Your task to perform on an android device: choose inbox layout in the gmail app Image 0: 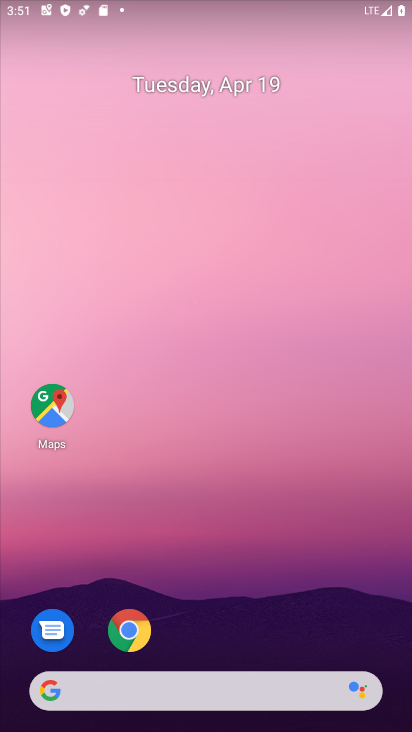
Step 0: drag from (232, 725) to (227, 102)
Your task to perform on an android device: choose inbox layout in the gmail app Image 1: 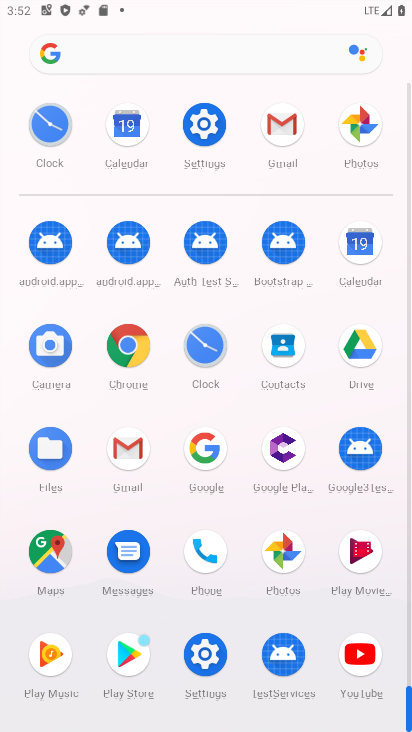
Step 1: click (284, 125)
Your task to perform on an android device: choose inbox layout in the gmail app Image 2: 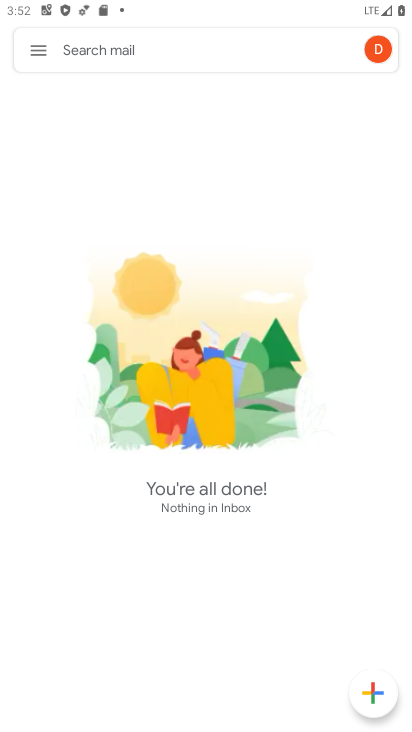
Step 2: click (42, 52)
Your task to perform on an android device: choose inbox layout in the gmail app Image 3: 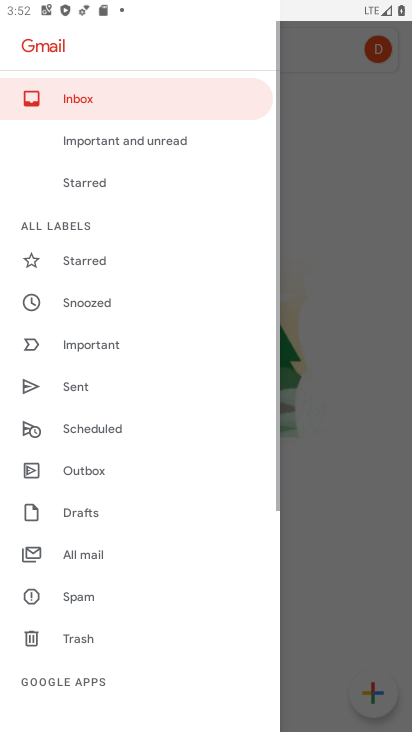
Step 3: drag from (101, 661) to (112, 184)
Your task to perform on an android device: choose inbox layout in the gmail app Image 4: 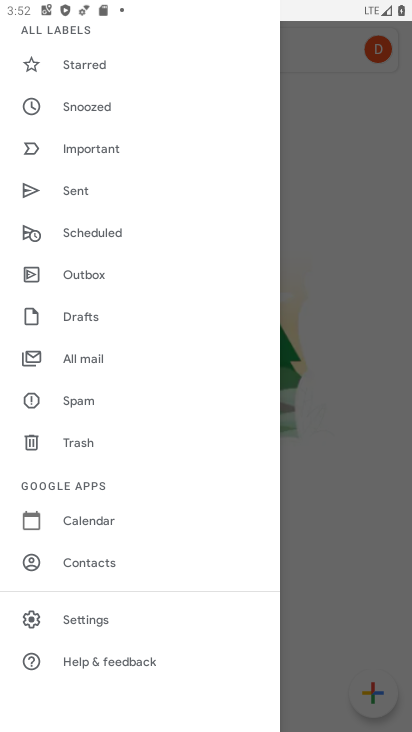
Step 4: click (86, 619)
Your task to perform on an android device: choose inbox layout in the gmail app Image 5: 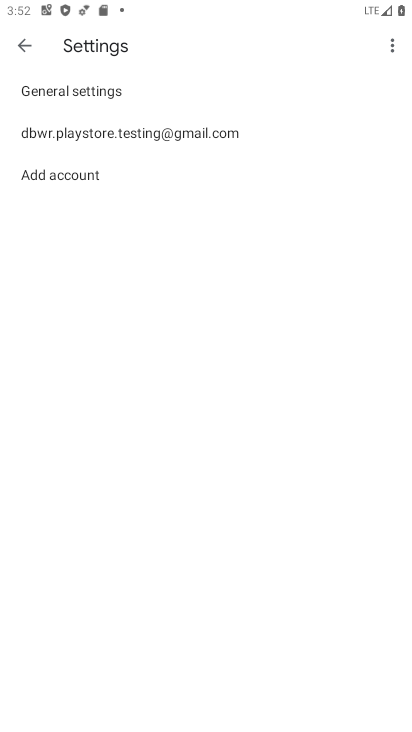
Step 5: click (174, 124)
Your task to perform on an android device: choose inbox layout in the gmail app Image 6: 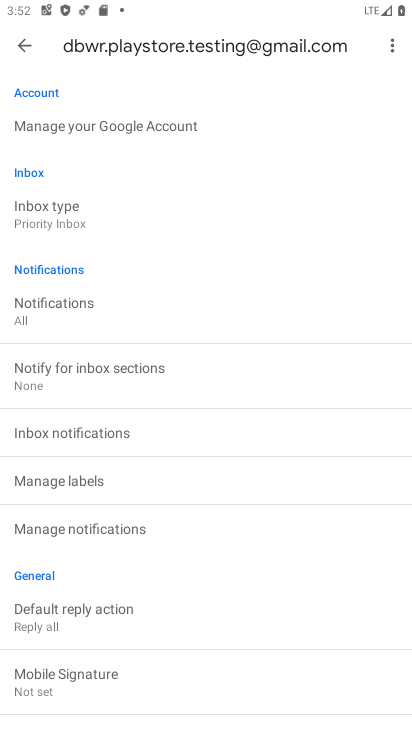
Step 6: click (60, 209)
Your task to perform on an android device: choose inbox layout in the gmail app Image 7: 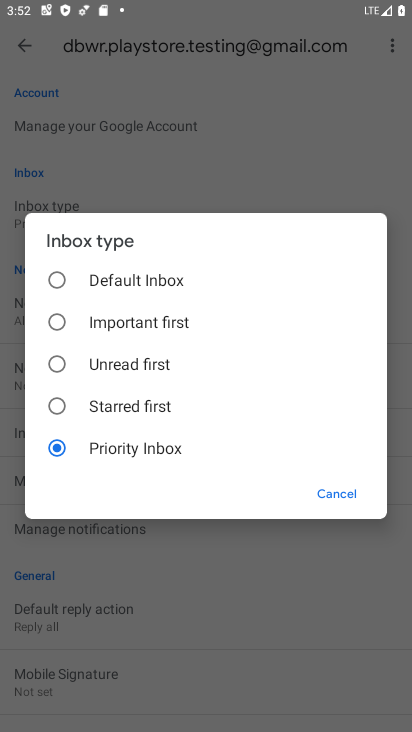
Step 7: click (55, 275)
Your task to perform on an android device: choose inbox layout in the gmail app Image 8: 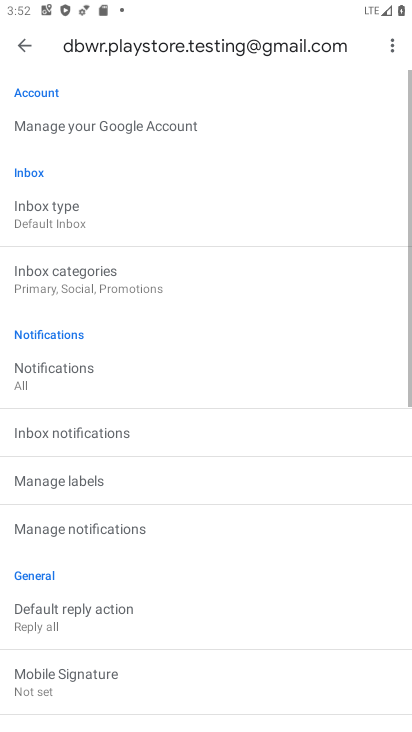
Step 8: task complete